Your task to perform on an android device: Open settings on Google Maps Image 0: 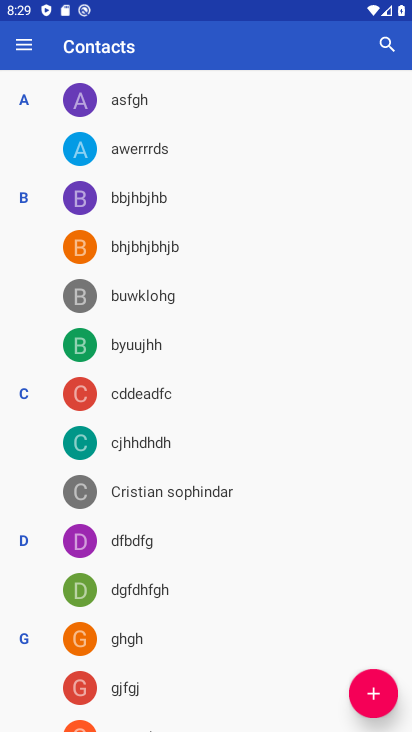
Step 0: press home button
Your task to perform on an android device: Open settings on Google Maps Image 1: 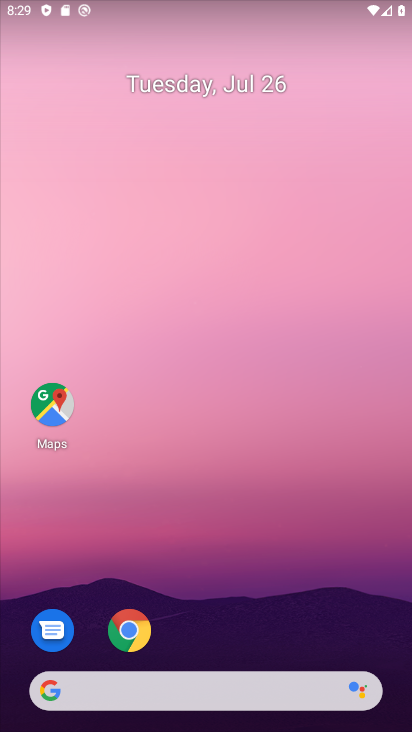
Step 1: drag from (200, 630) to (212, 10)
Your task to perform on an android device: Open settings on Google Maps Image 2: 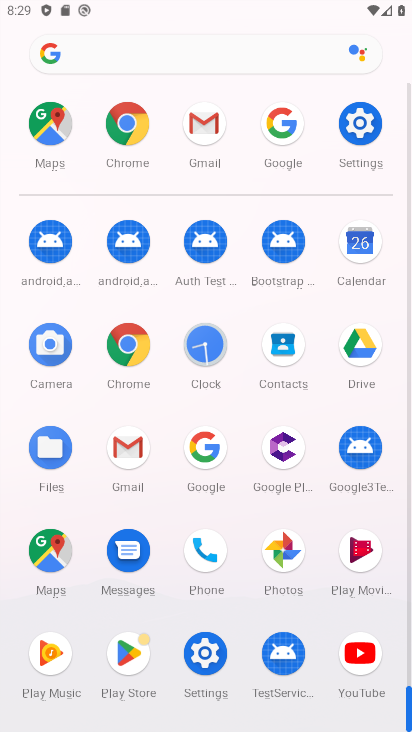
Step 2: click (220, 452)
Your task to perform on an android device: Open settings on Google Maps Image 3: 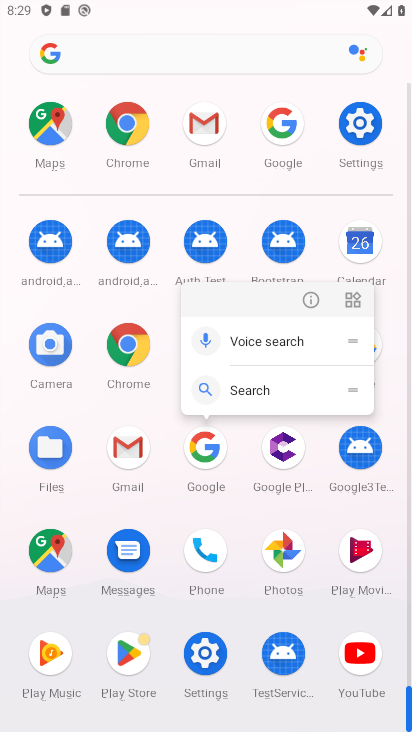
Step 3: click (40, 559)
Your task to perform on an android device: Open settings on Google Maps Image 4: 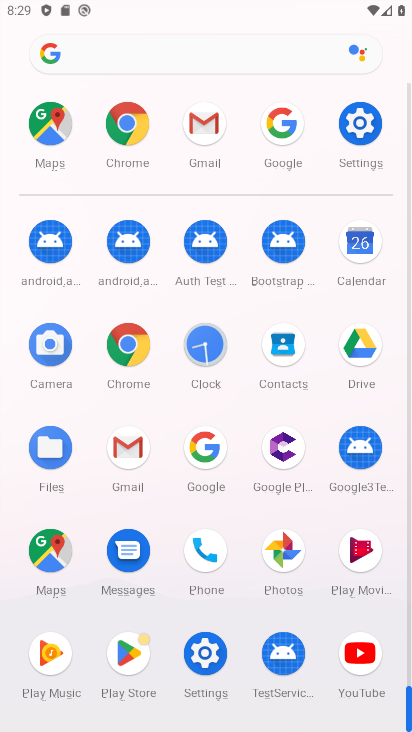
Step 4: click (59, 539)
Your task to perform on an android device: Open settings on Google Maps Image 5: 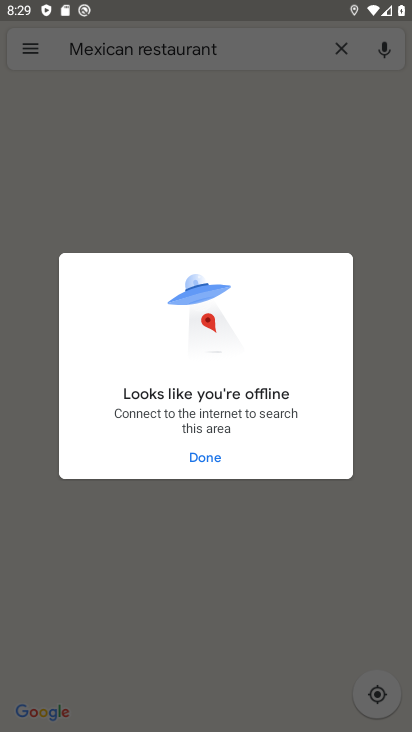
Step 5: click (193, 540)
Your task to perform on an android device: Open settings on Google Maps Image 6: 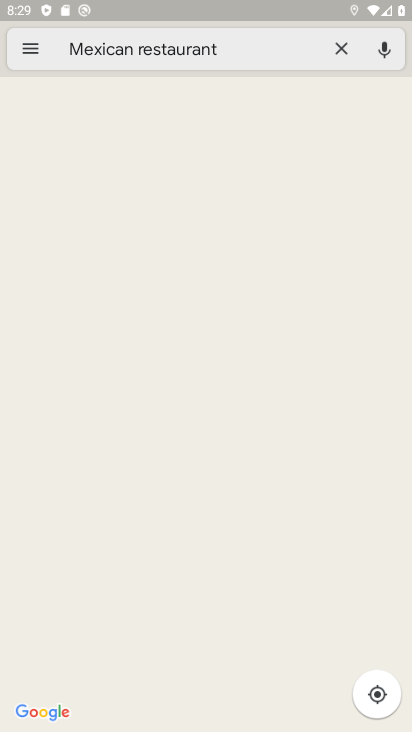
Step 6: click (33, 60)
Your task to perform on an android device: Open settings on Google Maps Image 7: 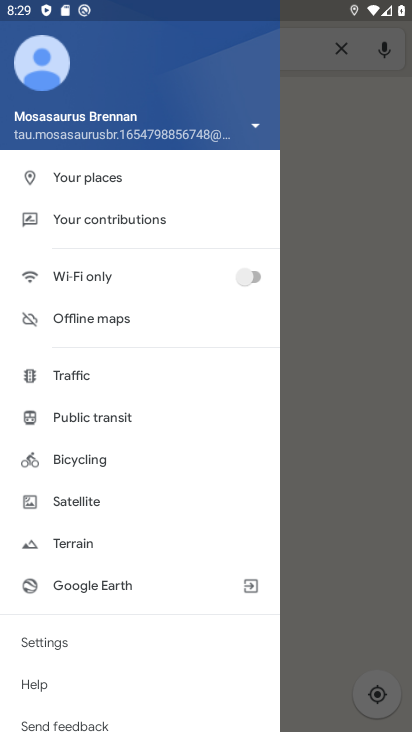
Step 7: click (62, 636)
Your task to perform on an android device: Open settings on Google Maps Image 8: 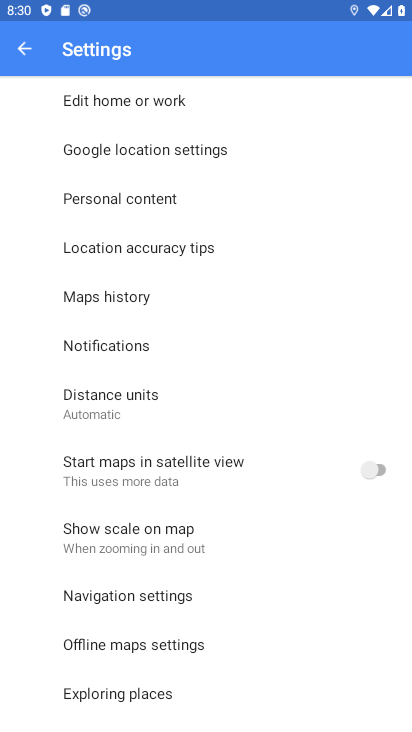
Step 8: task complete